Your task to perform on an android device: Go to CNN.com Image 0: 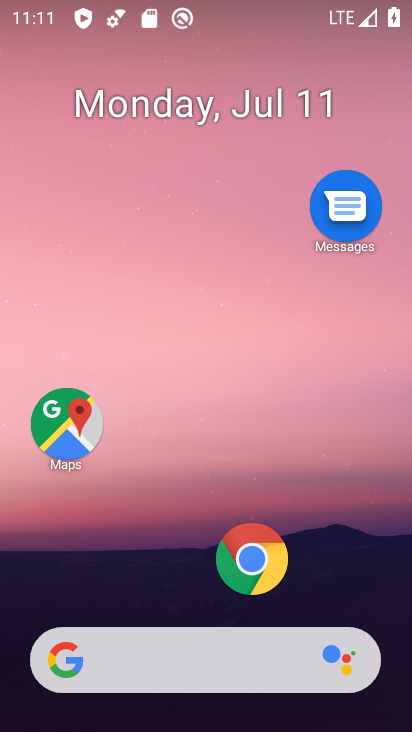
Step 0: drag from (367, 593) to (371, 112)
Your task to perform on an android device: Go to CNN.com Image 1: 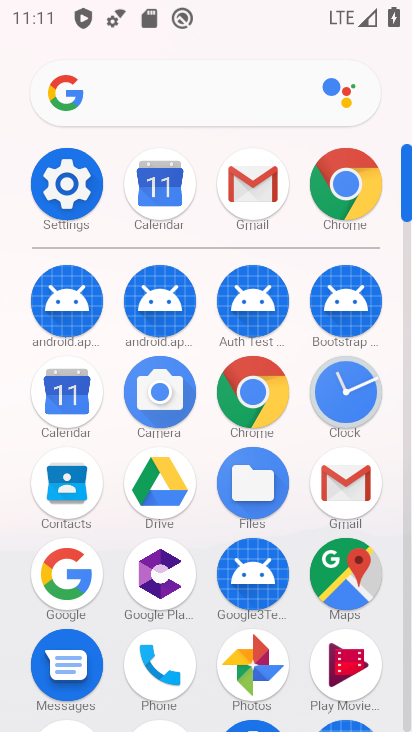
Step 1: click (271, 389)
Your task to perform on an android device: Go to CNN.com Image 2: 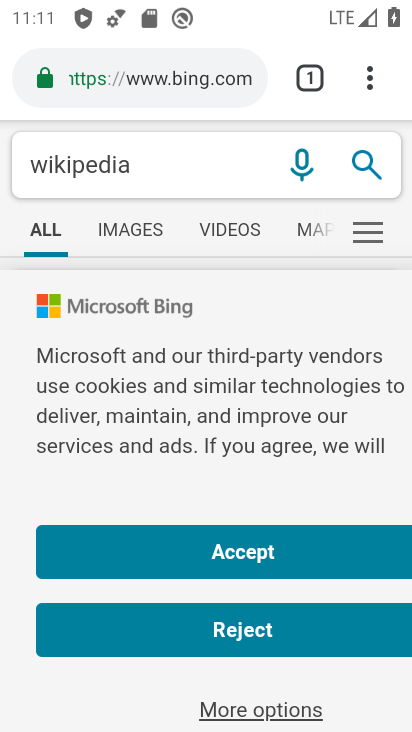
Step 2: click (197, 83)
Your task to perform on an android device: Go to CNN.com Image 3: 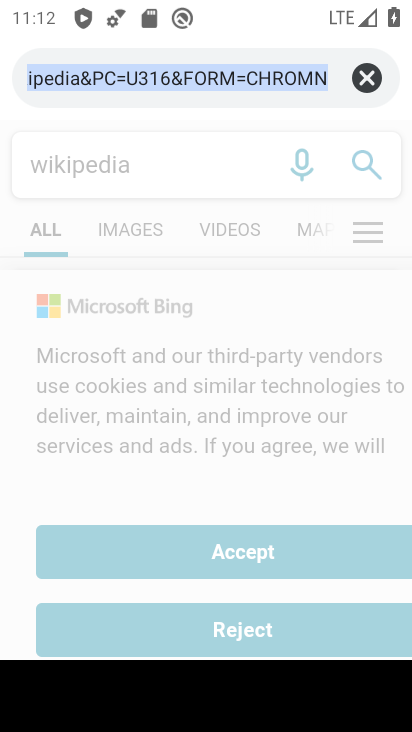
Step 3: type "cnn.com"
Your task to perform on an android device: Go to CNN.com Image 4: 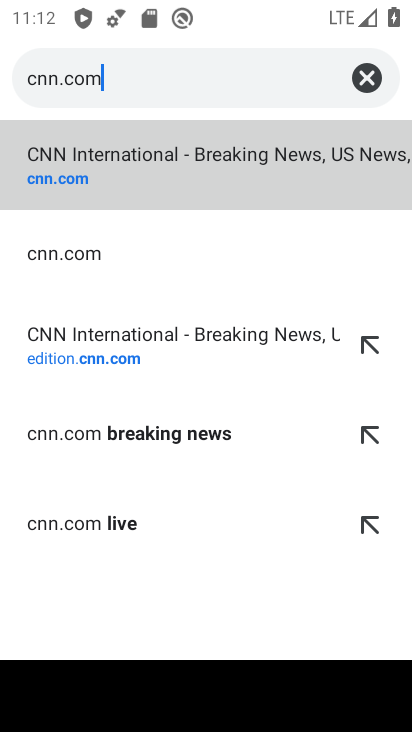
Step 4: click (293, 179)
Your task to perform on an android device: Go to CNN.com Image 5: 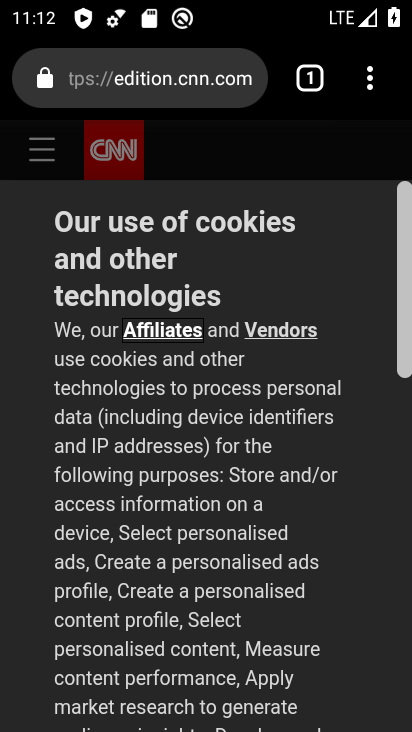
Step 5: task complete